Your task to perform on an android device: Show me productivity apps on the Play Store Image 0: 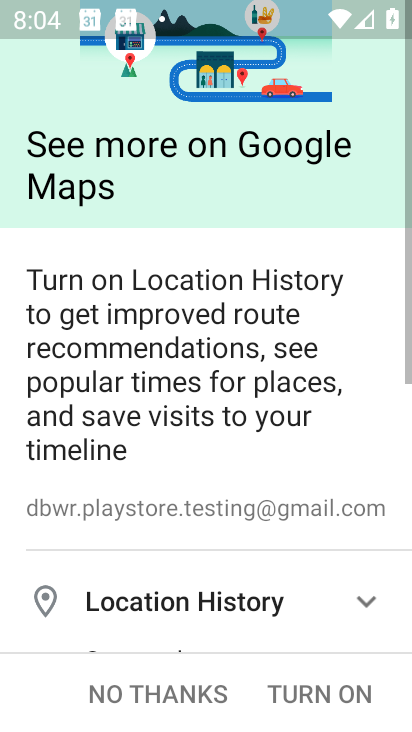
Step 0: press home button
Your task to perform on an android device: Show me productivity apps on the Play Store Image 1: 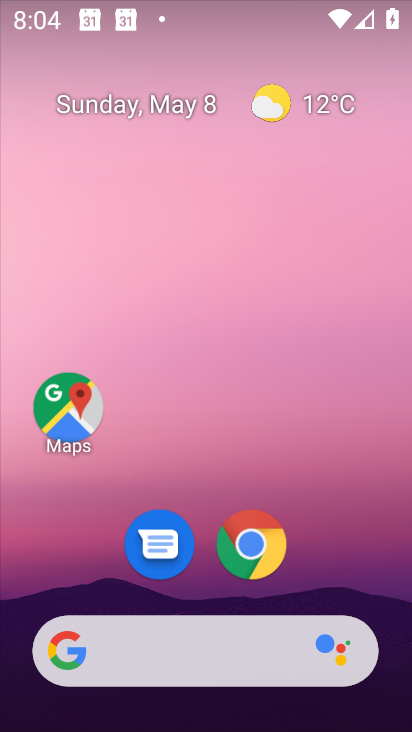
Step 1: drag from (340, 580) to (246, 146)
Your task to perform on an android device: Show me productivity apps on the Play Store Image 2: 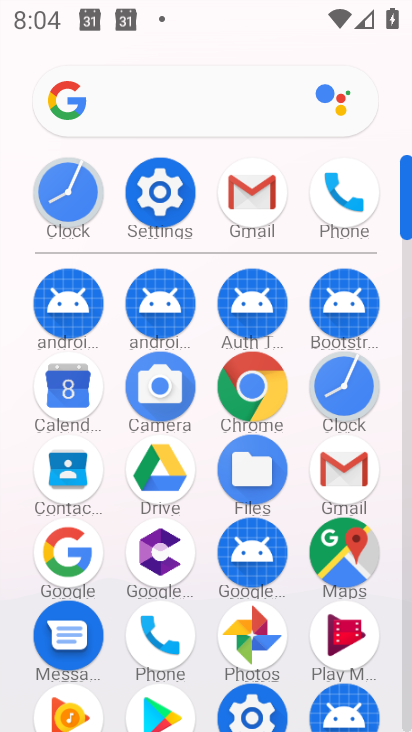
Step 2: click (151, 714)
Your task to perform on an android device: Show me productivity apps on the Play Store Image 3: 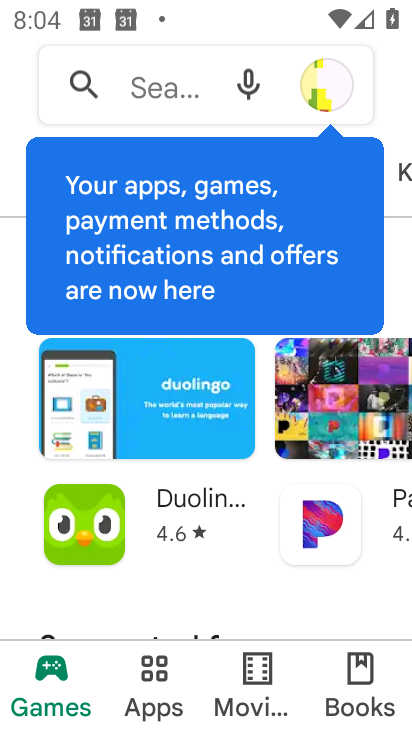
Step 3: click (154, 676)
Your task to perform on an android device: Show me productivity apps on the Play Store Image 4: 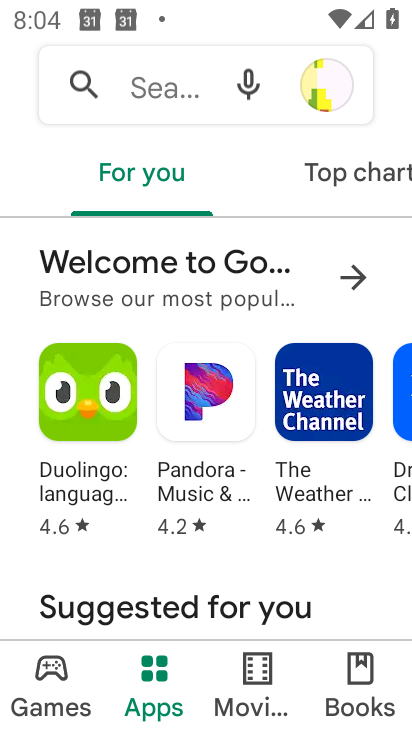
Step 4: task complete